Your task to perform on an android device: Go to settings Image 0: 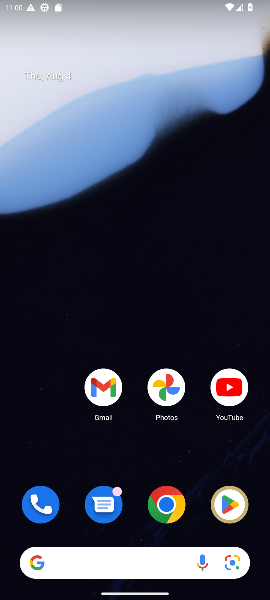
Step 0: drag from (138, 460) to (123, 17)
Your task to perform on an android device: Go to settings Image 1: 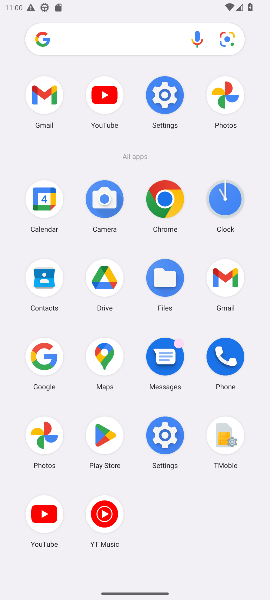
Step 1: click (168, 97)
Your task to perform on an android device: Go to settings Image 2: 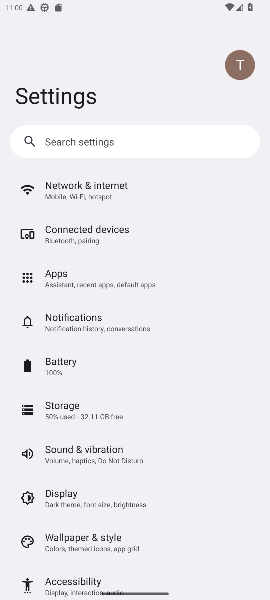
Step 2: task complete